Your task to perform on an android device: Go to ESPN.com Image 0: 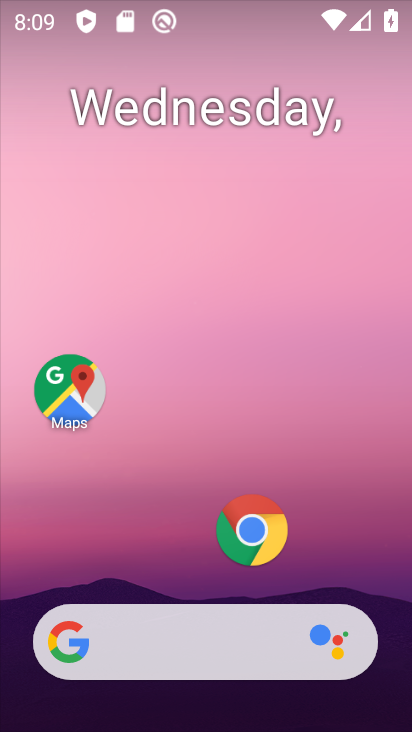
Step 0: drag from (108, 44) to (155, 385)
Your task to perform on an android device: Go to ESPN.com Image 1: 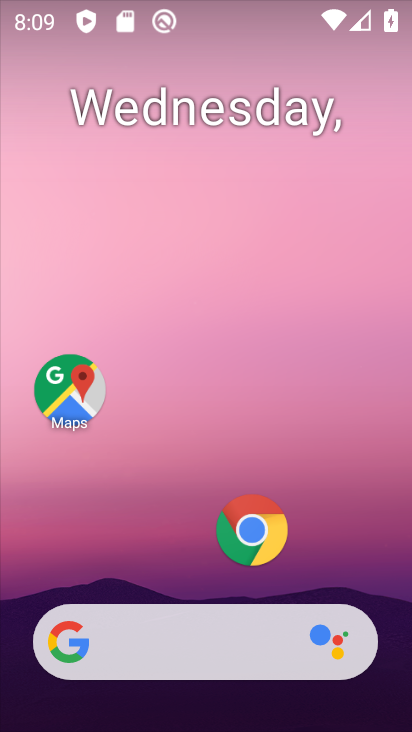
Step 1: drag from (174, 9) to (287, 1)
Your task to perform on an android device: Go to ESPN.com Image 2: 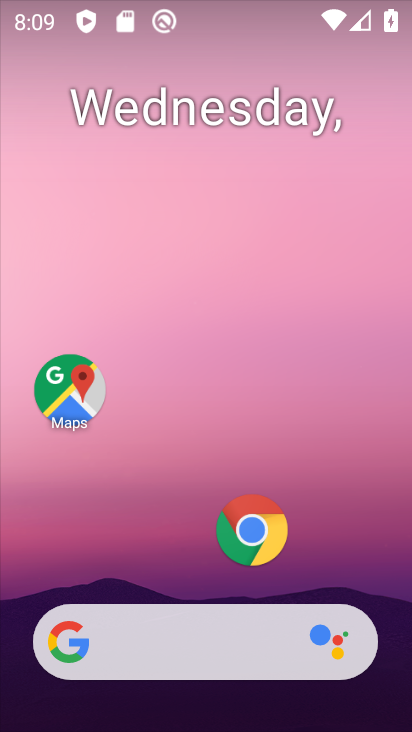
Step 2: click (268, 521)
Your task to perform on an android device: Go to ESPN.com Image 3: 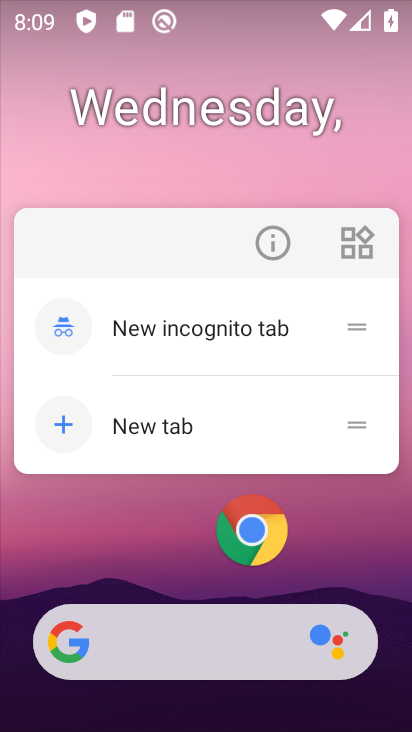
Step 3: click (257, 518)
Your task to perform on an android device: Go to ESPN.com Image 4: 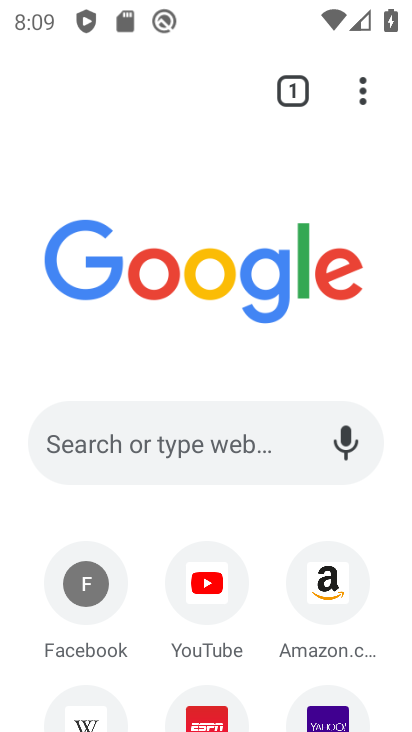
Step 4: click (202, 709)
Your task to perform on an android device: Go to ESPN.com Image 5: 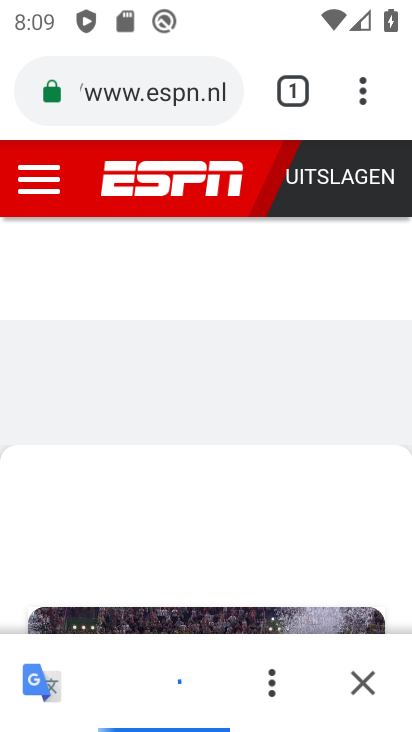
Step 5: task complete